Your task to perform on an android device: toggle notifications settings in the gmail app Image 0: 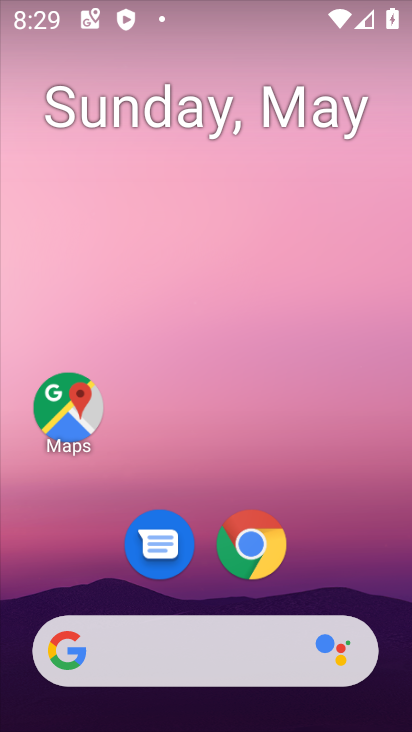
Step 0: drag from (378, 591) to (275, 27)
Your task to perform on an android device: toggle notifications settings in the gmail app Image 1: 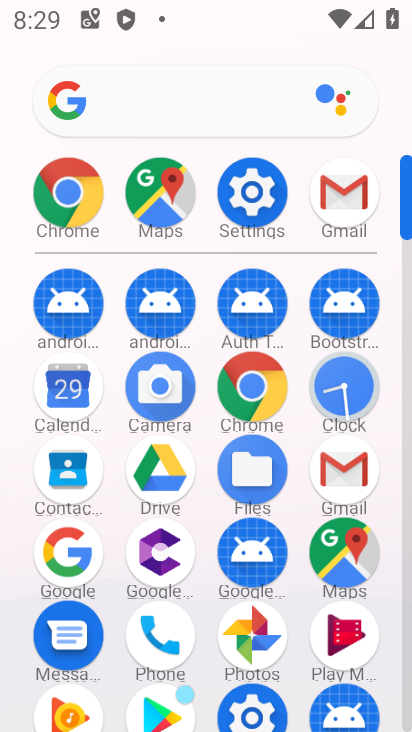
Step 1: drag from (20, 607) to (8, 224)
Your task to perform on an android device: toggle notifications settings in the gmail app Image 2: 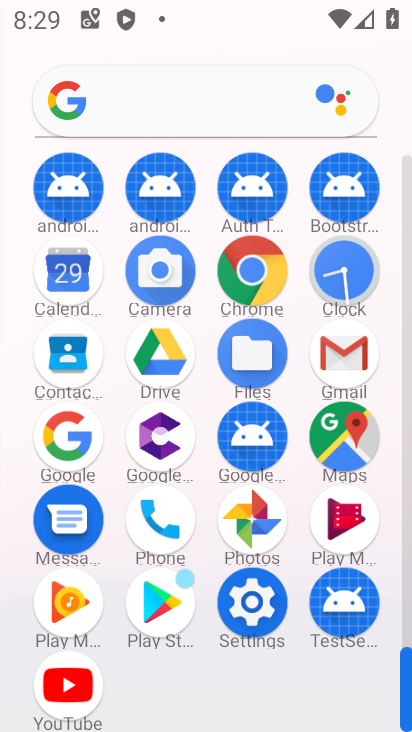
Step 2: click (342, 347)
Your task to perform on an android device: toggle notifications settings in the gmail app Image 3: 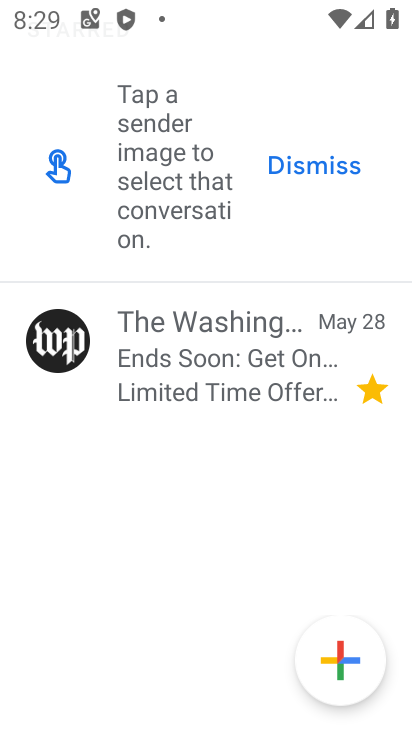
Step 3: drag from (179, 101) to (208, 310)
Your task to perform on an android device: toggle notifications settings in the gmail app Image 4: 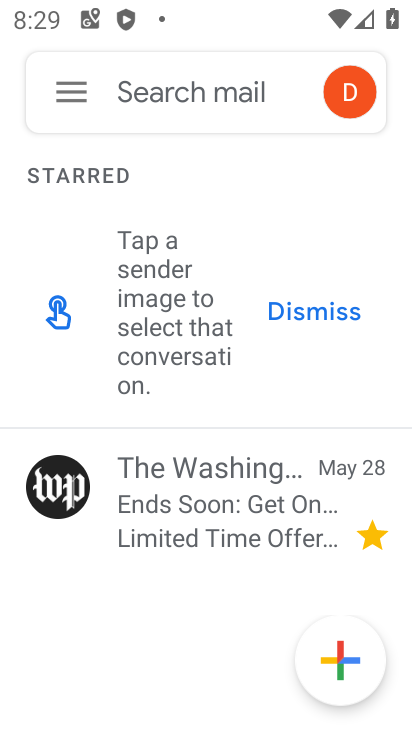
Step 4: click (57, 78)
Your task to perform on an android device: toggle notifications settings in the gmail app Image 5: 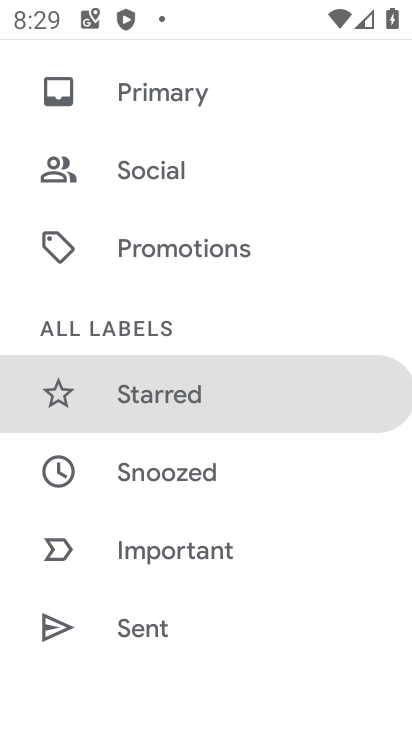
Step 5: drag from (266, 607) to (268, 117)
Your task to perform on an android device: toggle notifications settings in the gmail app Image 6: 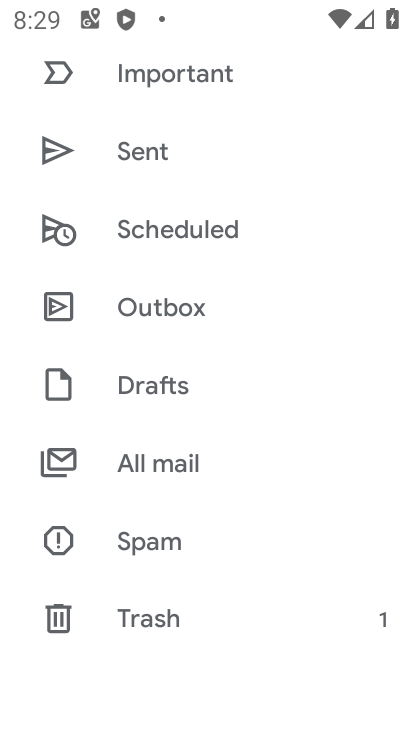
Step 6: drag from (178, 643) to (254, 201)
Your task to perform on an android device: toggle notifications settings in the gmail app Image 7: 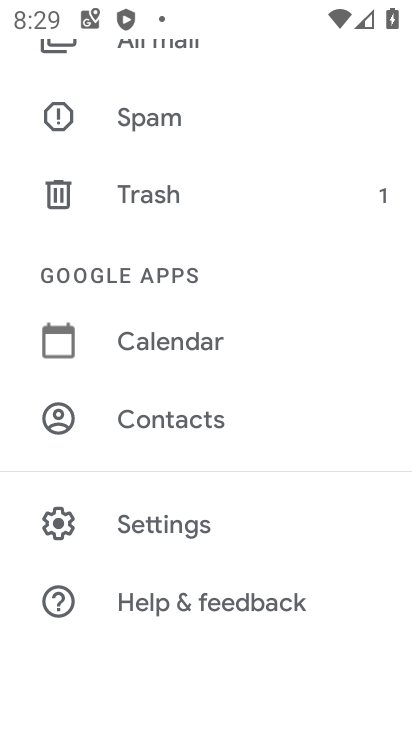
Step 7: click (174, 534)
Your task to perform on an android device: toggle notifications settings in the gmail app Image 8: 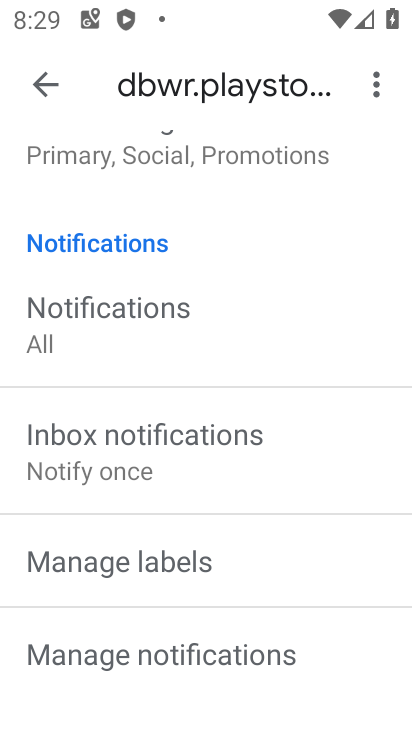
Step 8: click (178, 654)
Your task to perform on an android device: toggle notifications settings in the gmail app Image 9: 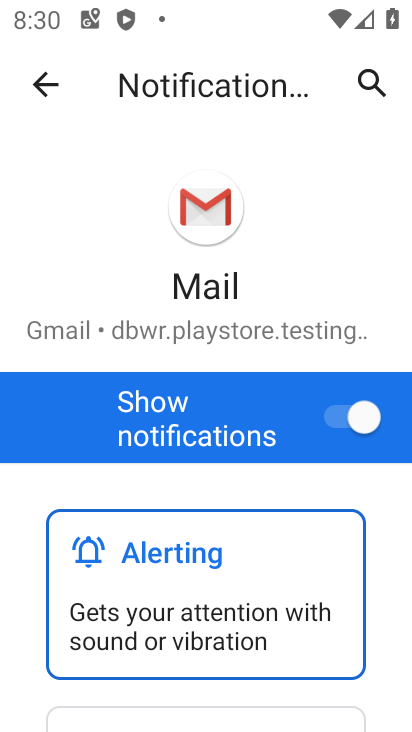
Step 9: click (332, 417)
Your task to perform on an android device: toggle notifications settings in the gmail app Image 10: 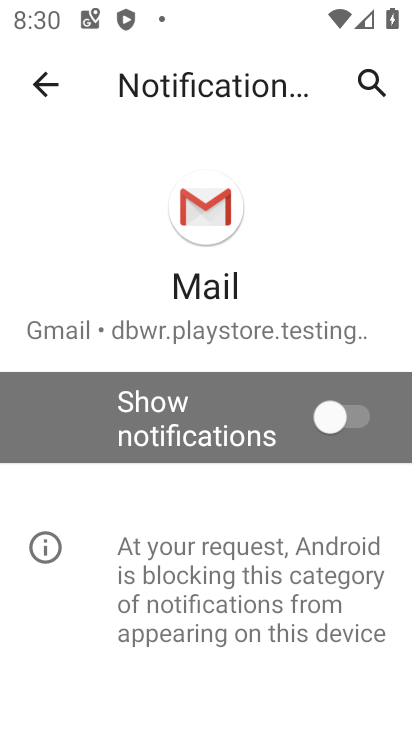
Step 10: task complete